Your task to perform on an android device: Open location settings Image 0: 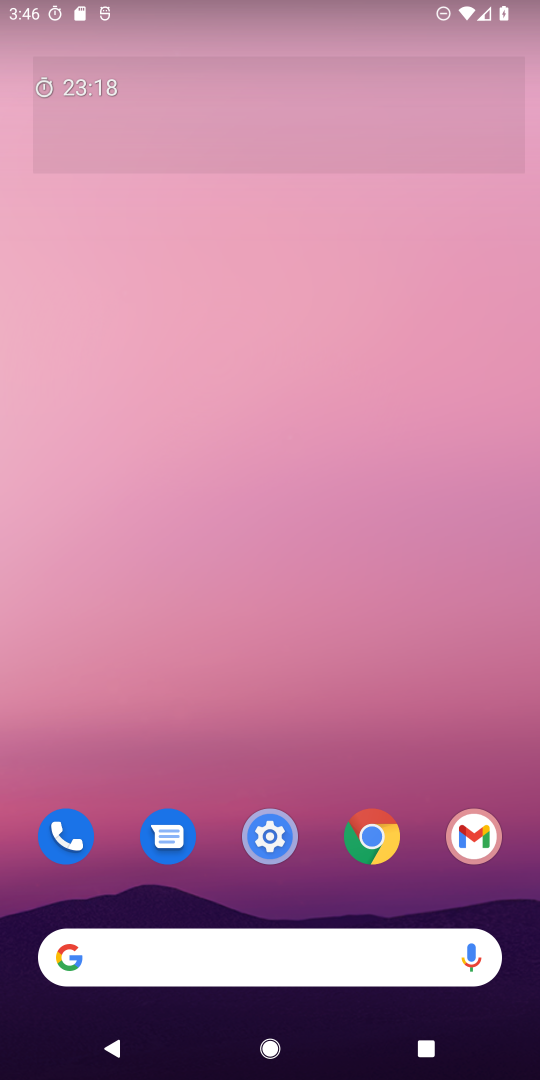
Step 0: drag from (241, 871) to (389, 2)
Your task to perform on an android device: Open location settings Image 1: 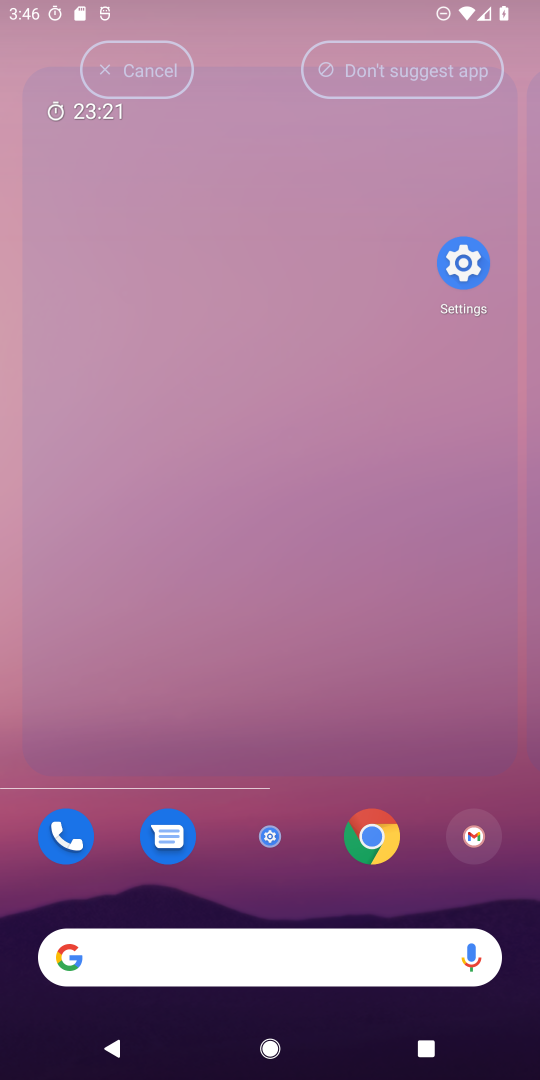
Step 1: press home button
Your task to perform on an android device: Open location settings Image 2: 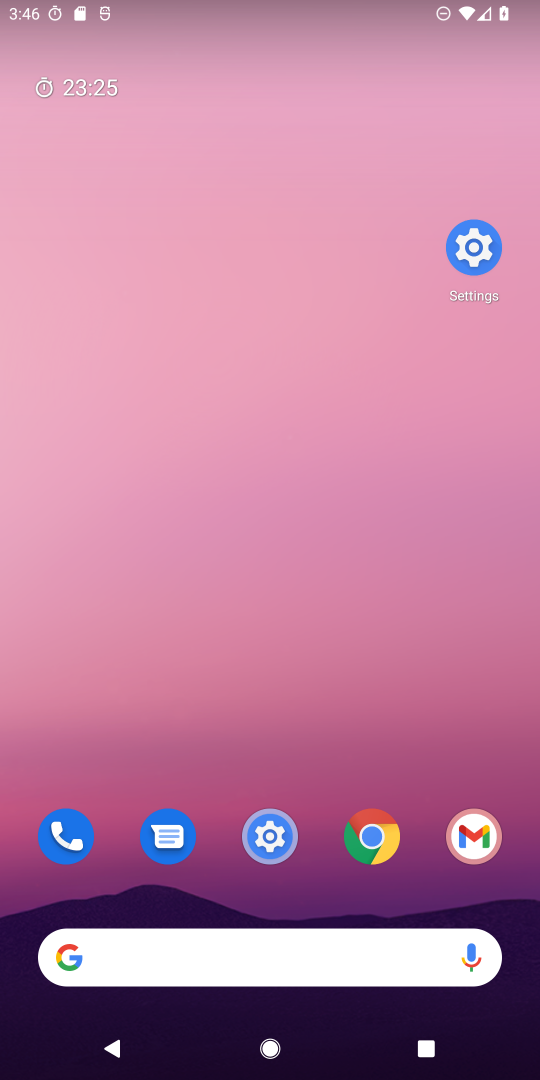
Step 2: click (268, 843)
Your task to perform on an android device: Open location settings Image 3: 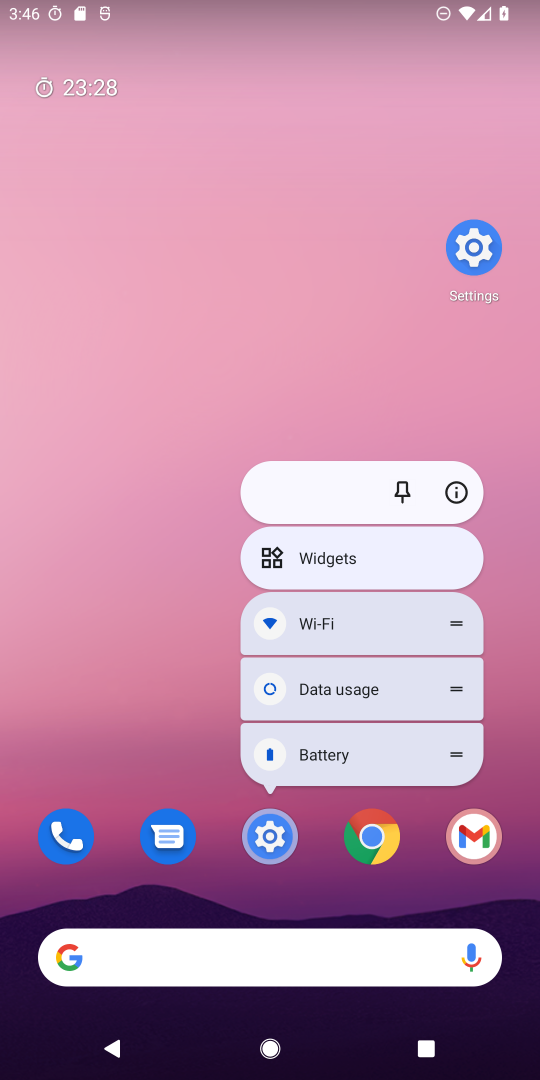
Step 3: click (267, 842)
Your task to perform on an android device: Open location settings Image 4: 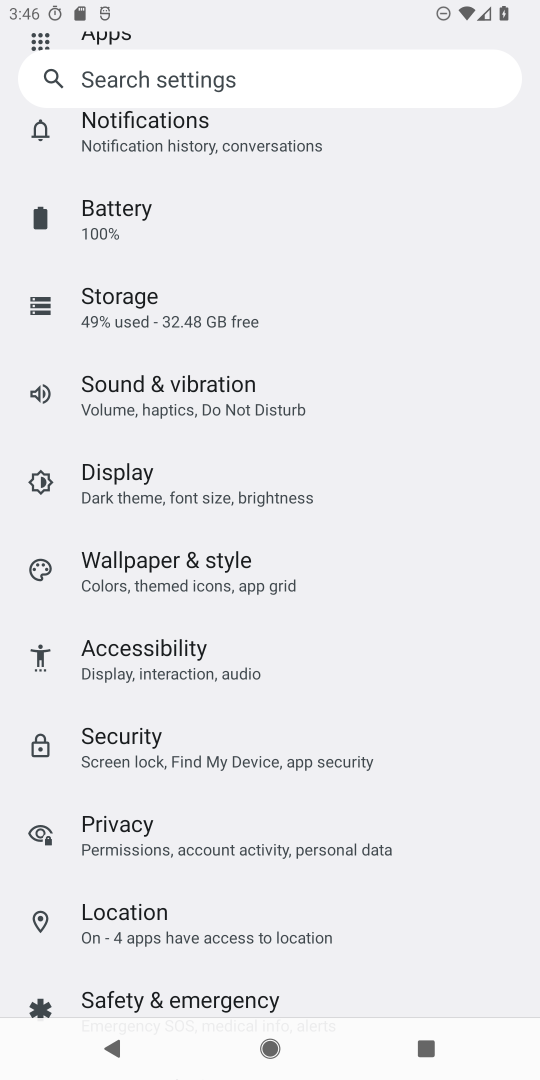
Step 4: drag from (235, 371) to (239, 275)
Your task to perform on an android device: Open location settings Image 5: 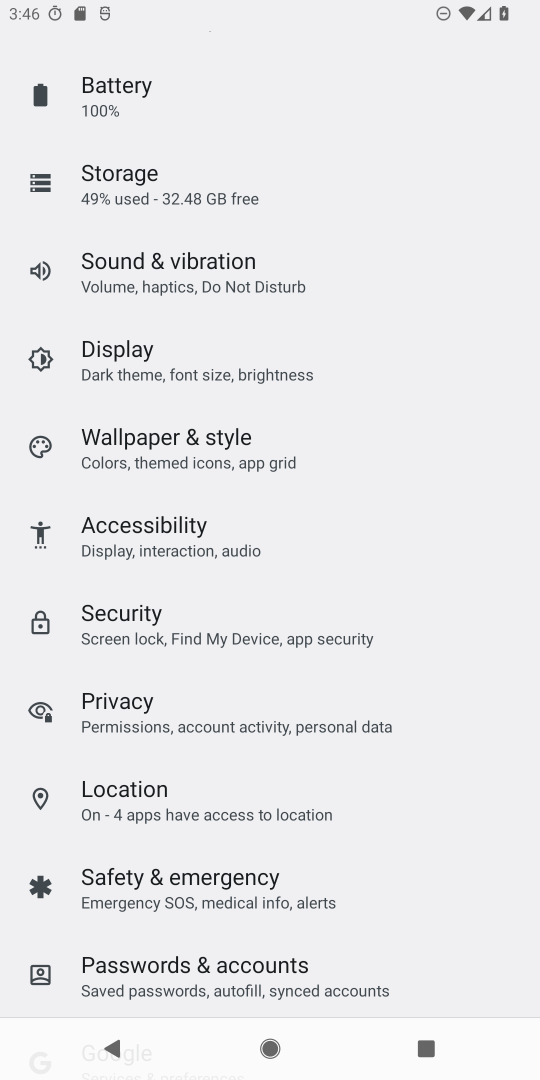
Step 5: click (160, 786)
Your task to perform on an android device: Open location settings Image 6: 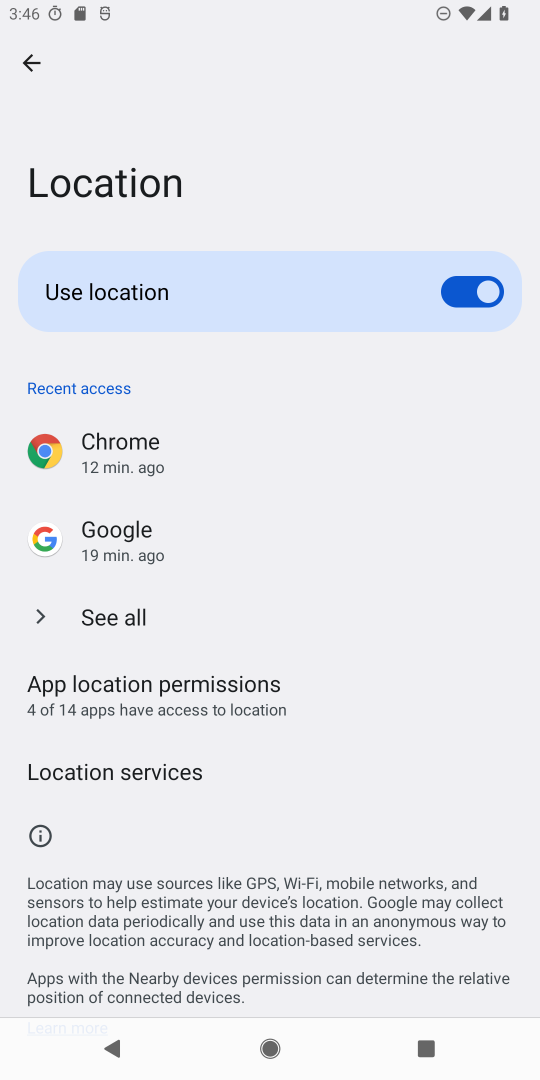
Step 6: task complete